Your task to perform on an android device: turn notification dots on Image 0: 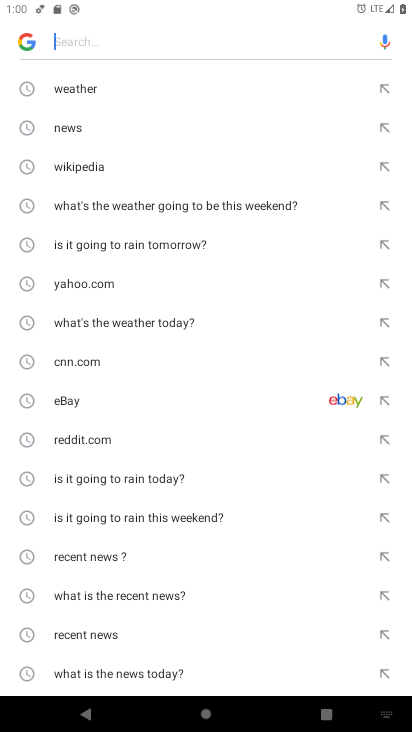
Step 0: press home button
Your task to perform on an android device: turn notification dots on Image 1: 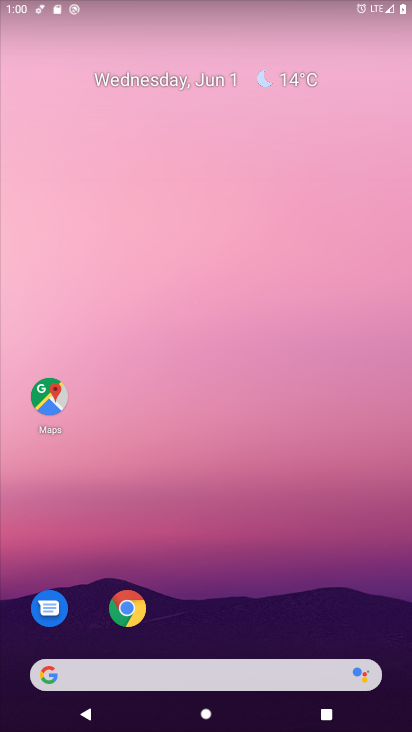
Step 1: drag from (214, 622) to (258, 211)
Your task to perform on an android device: turn notification dots on Image 2: 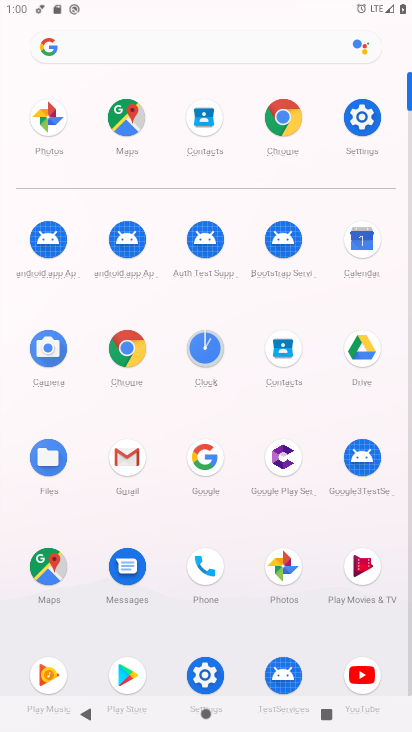
Step 2: click (375, 117)
Your task to perform on an android device: turn notification dots on Image 3: 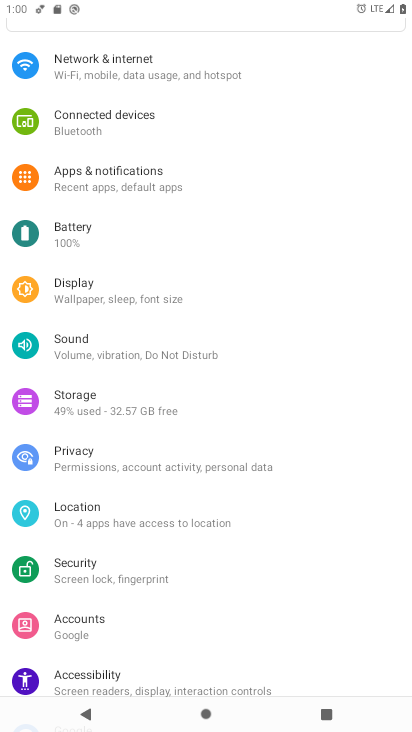
Step 3: click (122, 180)
Your task to perform on an android device: turn notification dots on Image 4: 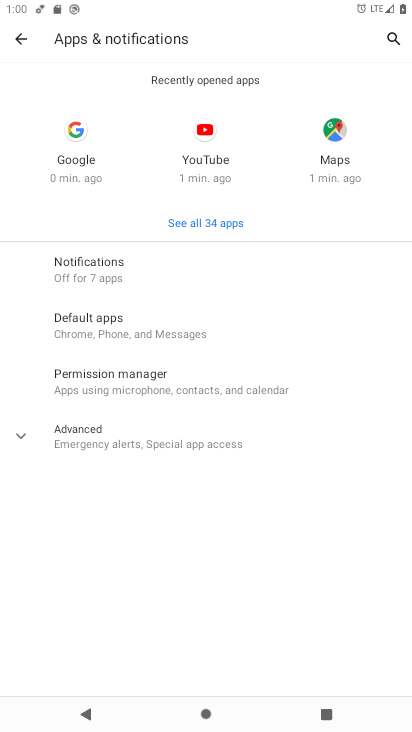
Step 4: click (113, 276)
Your task to perform on an android device: turn notification dots on Image 5: 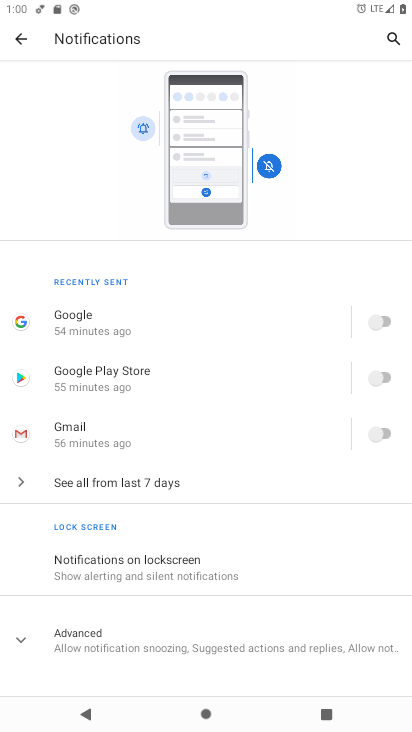
Step 5: click (149, 645)
Your task to perform on an android device: turn notification dots on Image 6: 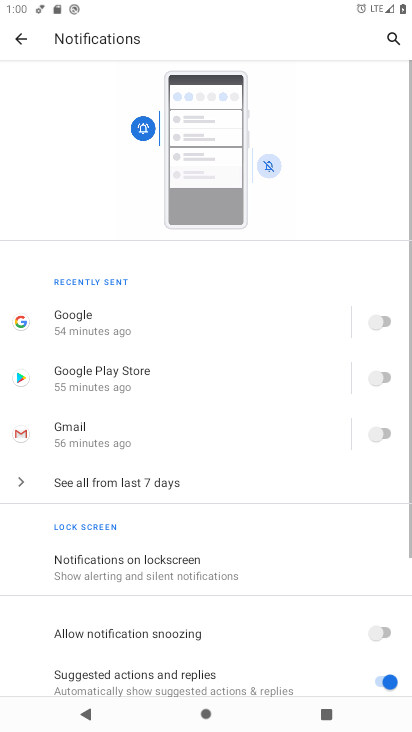
Step 6: drag from (147, 617) to (185, 395)
Your task to perform on an android device: turn notification dots on Image 7: 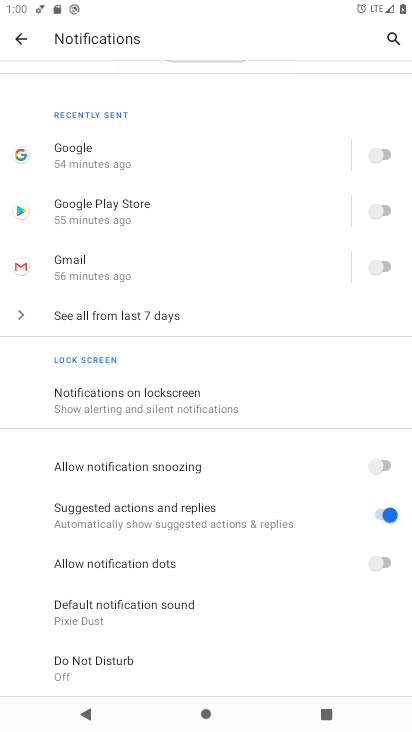
Step 7: click (375, 562)
Your task to perform on an android device: turn notification dots on Image 8: 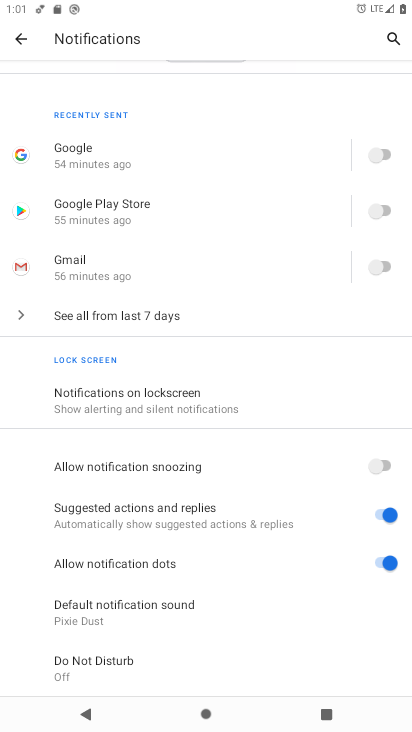
Step 8: task complete